Your task to perform on an android device: create a new album in the google photos Image 0: 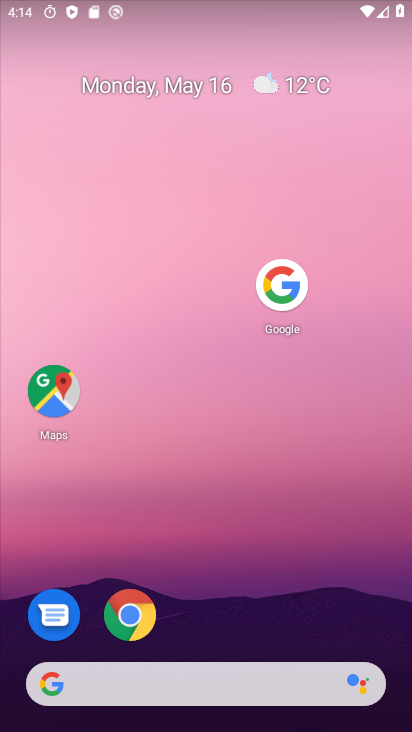
Step 0: drag from (220, 644) to (328, 14)
Your task to perform on an android device: create a new album in the google photos Image 1: 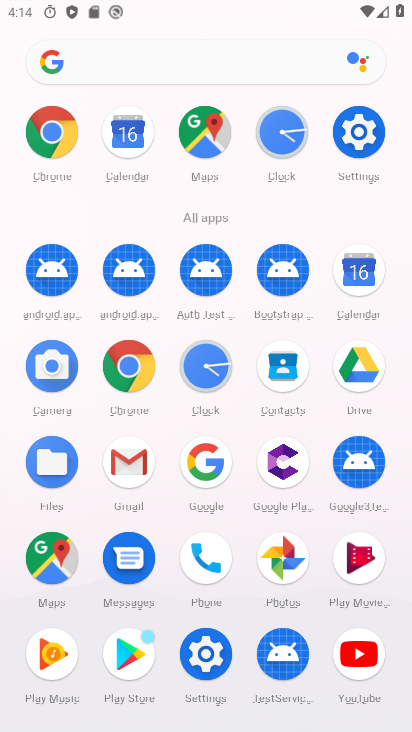
Step 1: click (276, 560)
Your task to perform on an android device: create a new album in the google photos Image 2: 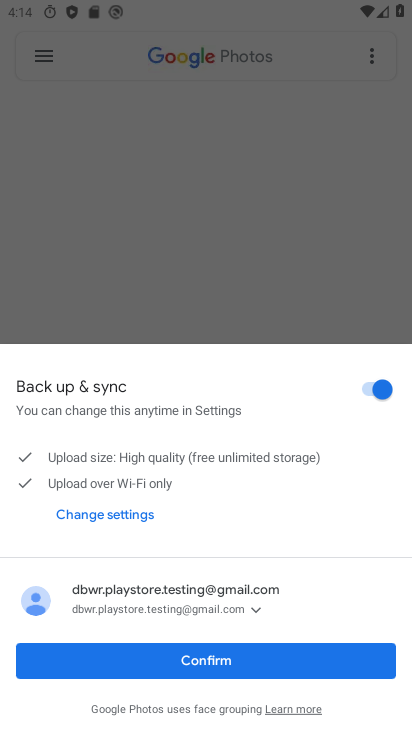
Step 2: click (261, 665)
Your task to perform on an android device: create a new album in the google photos Image 3: 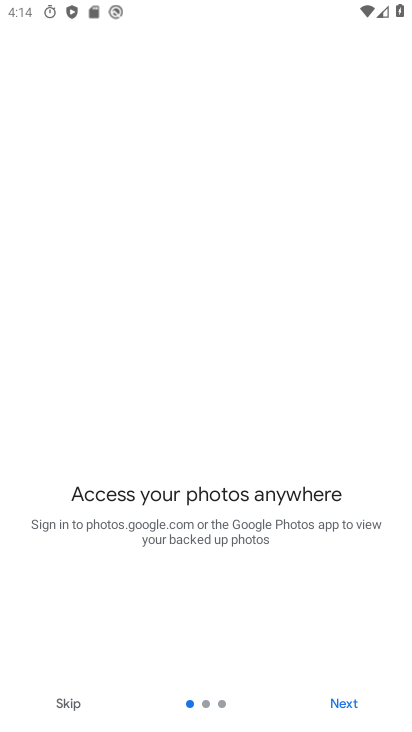
Step 3: click (75, 700)
Your task to perform on an android device: create a new album in the google photos Image 4: 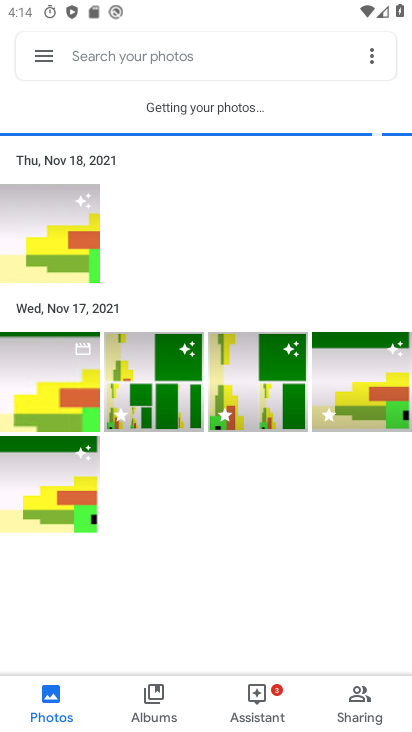
Step 4: click (67, 271)
Your task to perform on an android device: create a new album in the google photos Image 5: 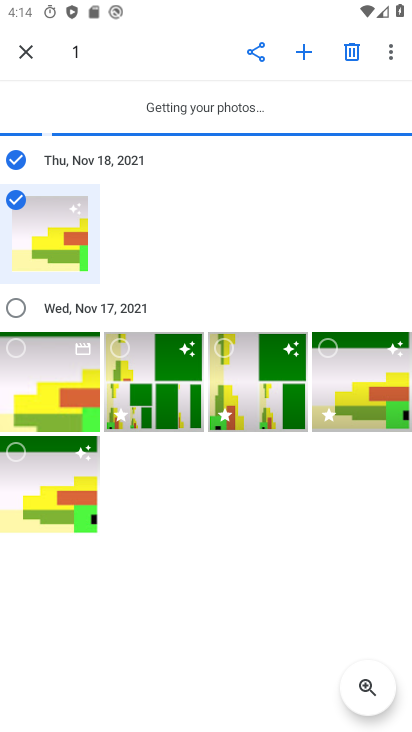
Step 5: click (76, 352)
Your task to perform on an android device: create a new album in the google photos Image 6: 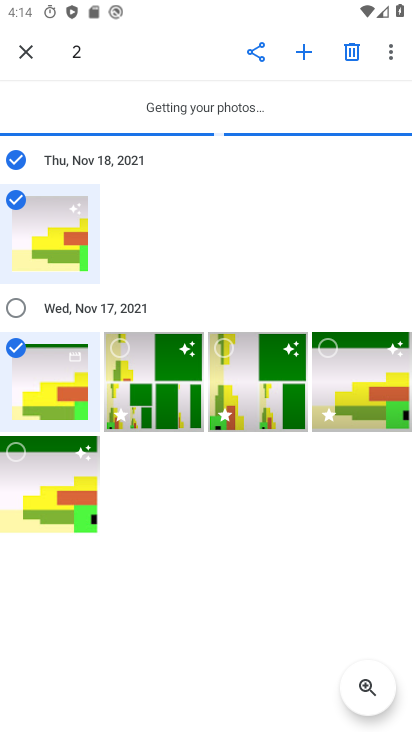
Step 6: click (306, 63)
Your task to perform on an android device: create a new album in the google photos Image 7: 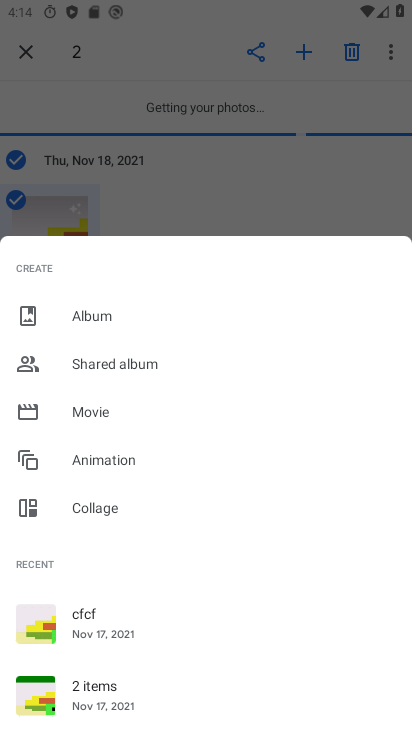
Step 7: click (89, 315)
Your task to perform on an android device: create a new album in the google photos Image 8: 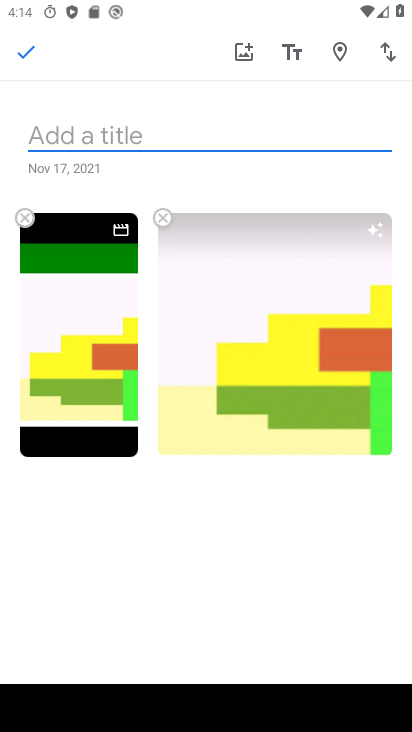
Step 8: type "g"
Your task to perform on an android device: create a new album in the google photos Image 9: 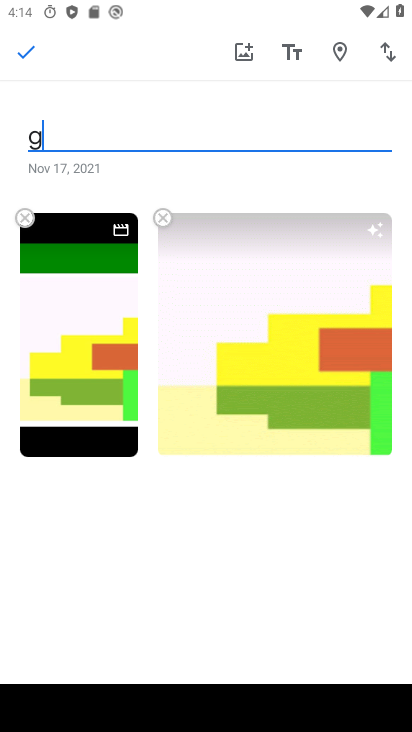
Step 9: type ""
Your task to perform on an android device: create a new album in the google photos Image 10: 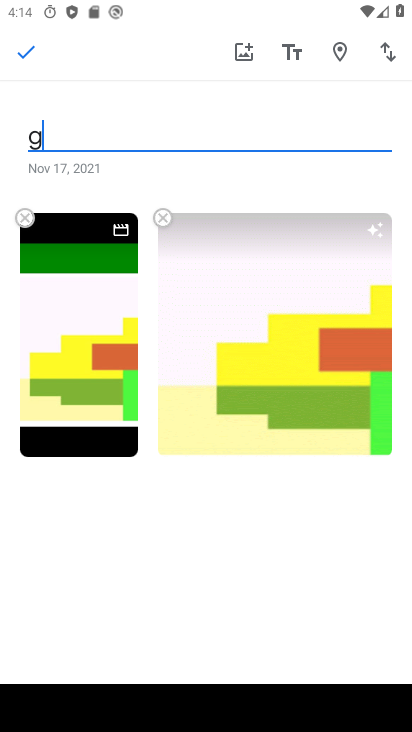
Step 10: click (16, 49)
Your task to perform on an android device: create a new album in the google photos Image 11: 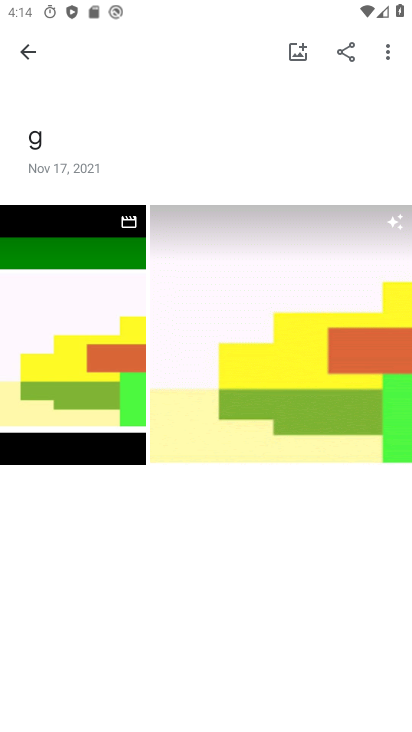
Step 11: task complete